Your task to perform on an android device: Go to Wikipedia Image 0: 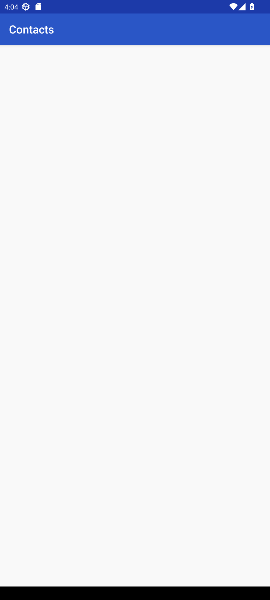
Step 0: press home button
Your task to perform on an android device: Go to Wikipedia Image 1: 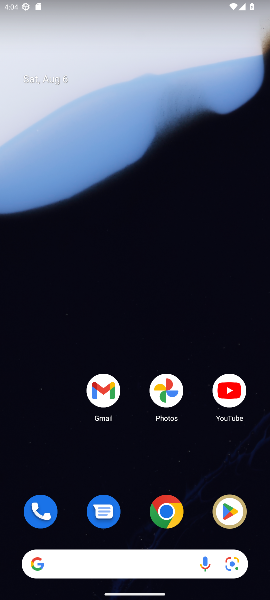
Step 1: click (170, 519)
Your task to perform on an android device: Go to Wikipedia Image 2: 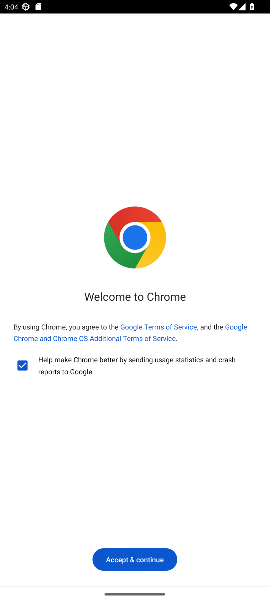
Step 2: click (147, 551)
Your task to perform on an android device: Go to Wikipedia Image 3: 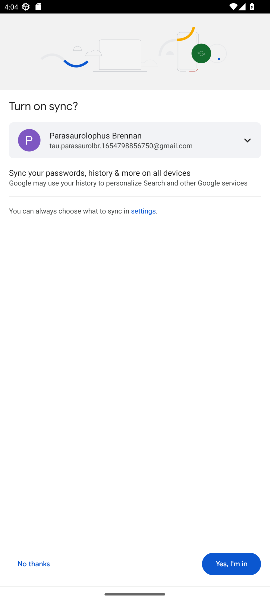
Step 3: click (244, 567)
Your task to perform on an android device: Go to Wikipedia Image 4: 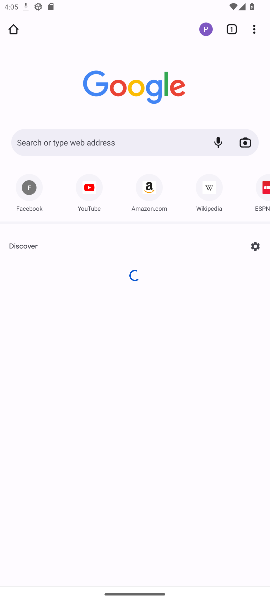
Step 4: click (119, 143)
Your task to perform on an android device: Go to Wikipedia Image 5: 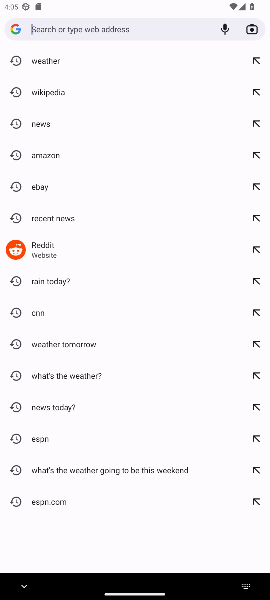
Step 5: type "wikipedia"
Your task to perform on an android device: Go to Wikipedia Image 6: 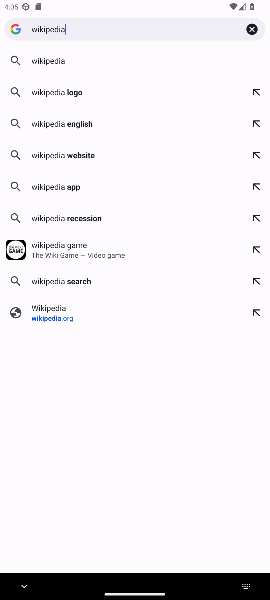
Step 6: click (57, 58)
Your task to perform on an android device: Go to Wikipedia Image 7: 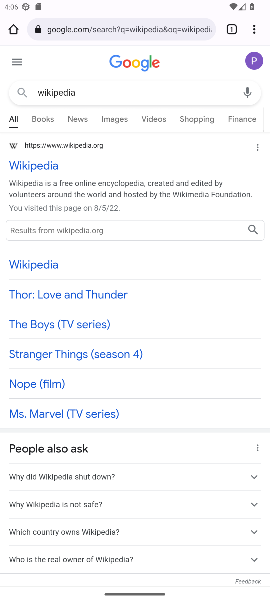
Step 7: task complete